Your task to perform on an android device: open app "Instagram" Image 0: 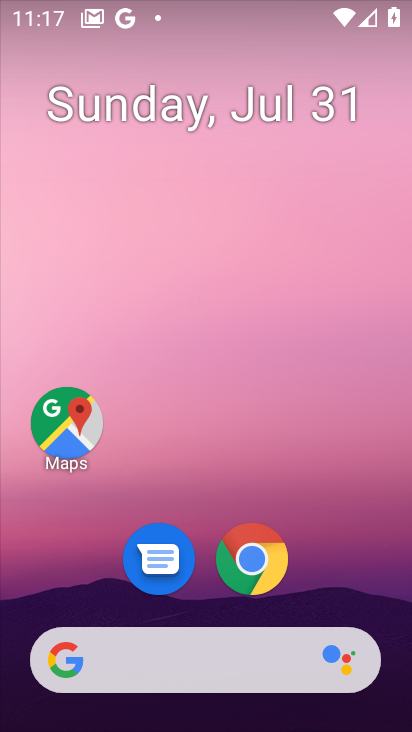
Step 0: drag from (196, 577) to (236, 96)
Your task to perform on an android device: open app "Instagram" Image 1: 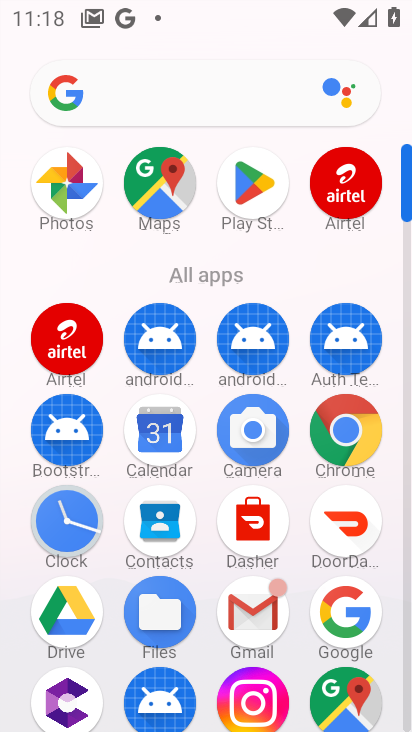
Step 1: click (252, 183)
Your task to perform on an android device: open app "Instagram" Image 2: 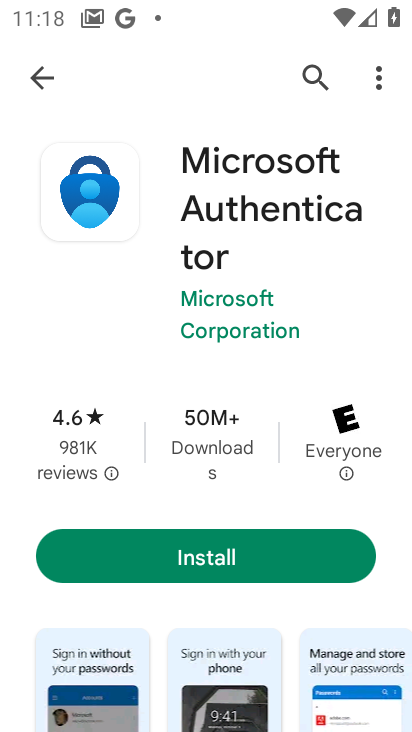
Step 2: click (317, 80)
Your task to perform on an android device: open app "Instagram" Image 3: 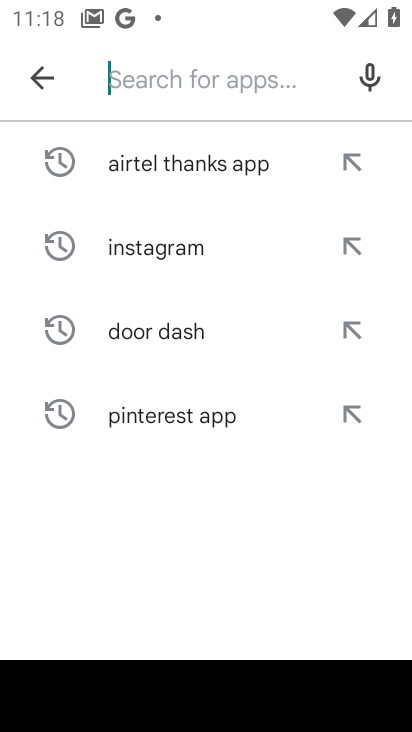
Step 3: click (146, 266)
Your task to perform on an android device: open app "Instagram" Image 4: 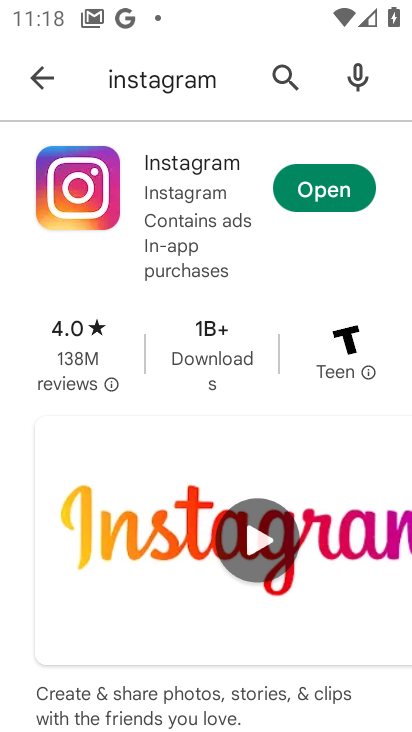
Step 4: click (309, 190)
Your task to perform on an android device: open app "Instagram" Image 5: 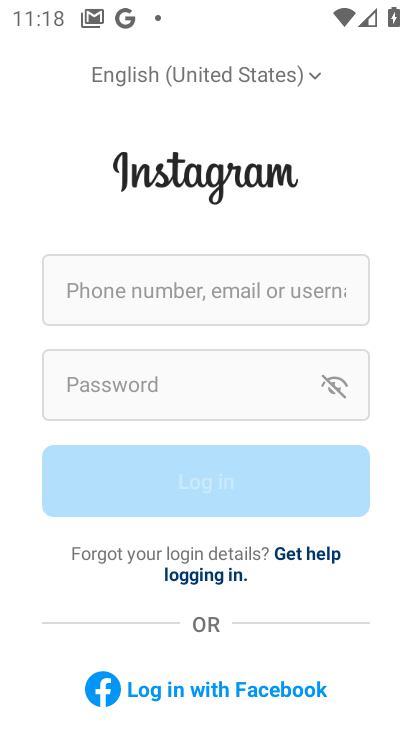
Step 5: task complete